Your task to perform on an android device: See recent photos Image 0: 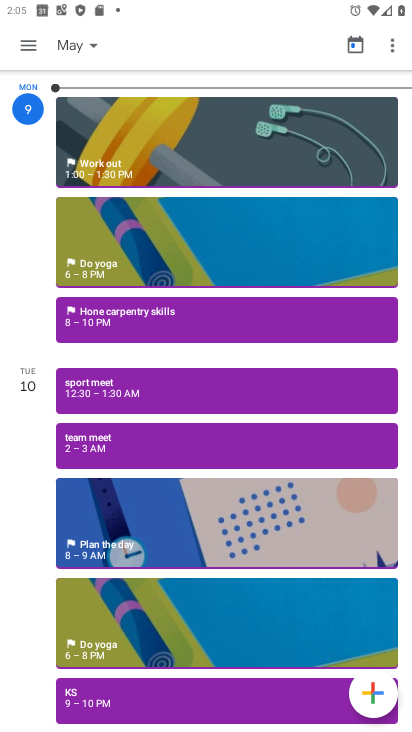
Step 0: press home button
Your task to perform on an android device: See recent photos Image 1: 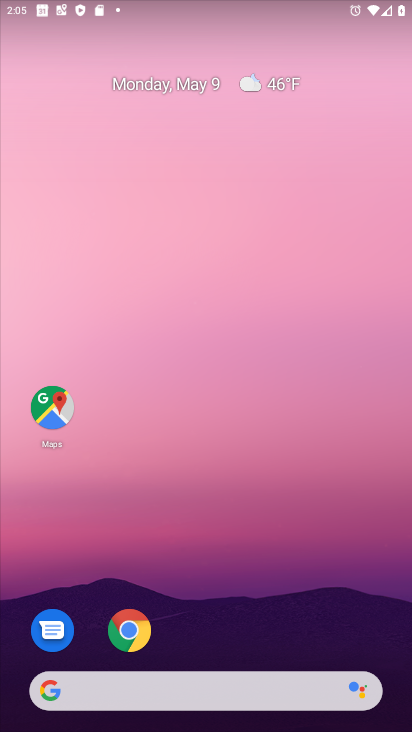
Step 1: drag from (301, 704) to (134, 226)
Your task to perform on an android device: See recent photos Image 2: 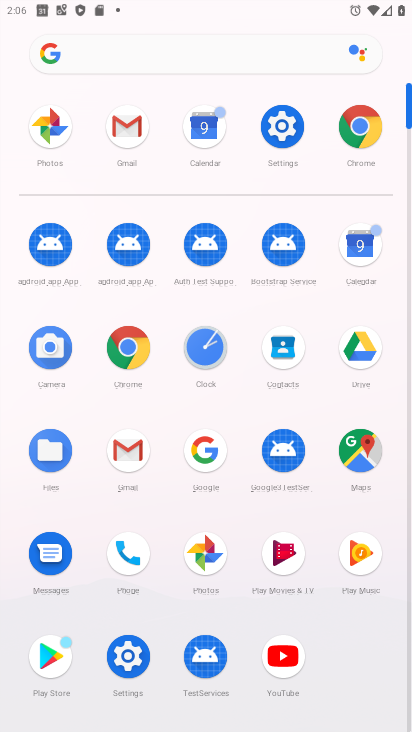
Step 2: click (215, 558)
Your task to perform on an android device: See recent photos Image 3: 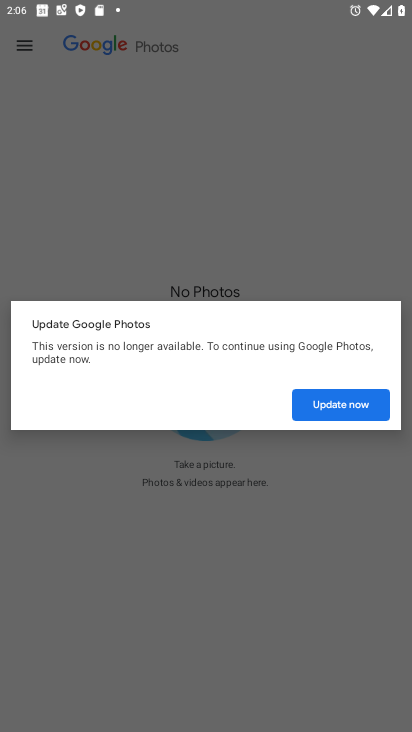
Step 3: click (356, 402)
Your task to perform on an android device: See recent photos Image 4: 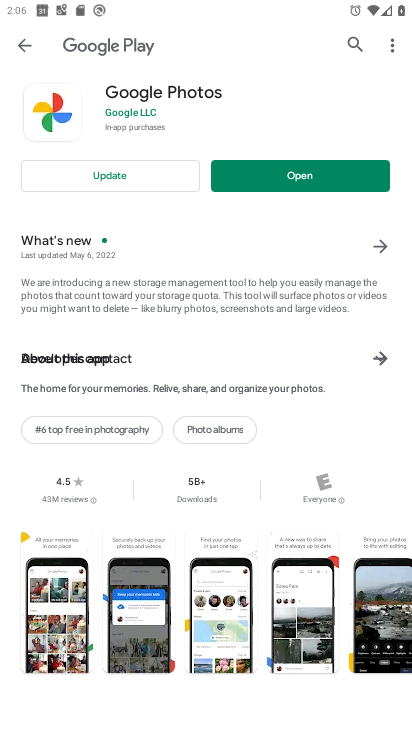
Step 4: click (288, 187)
Your task to perform on an android device: See recent photos Image 5: 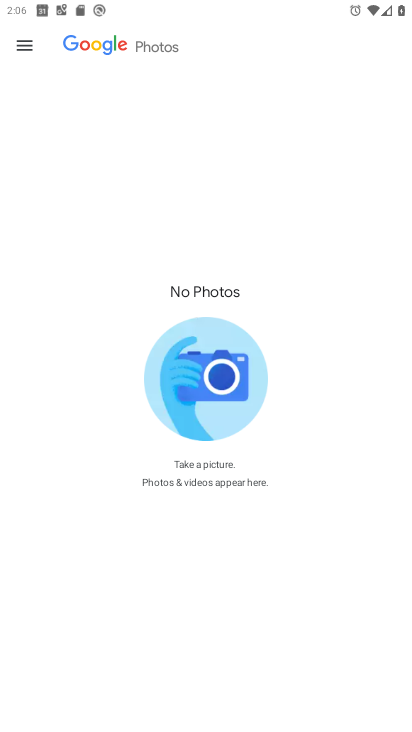
Step 5: task complete